Your task to perform on an android device: turn off airplane mode Image 0: 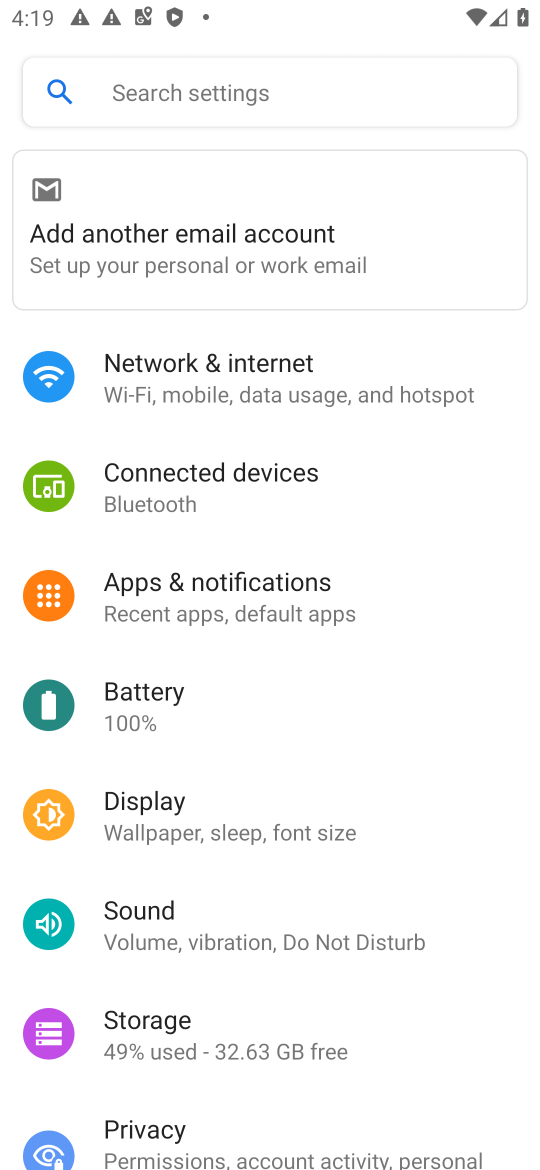
Step 0: click (135, 407)
Your task to perform on an android device: turn off airplane mode Image 1: 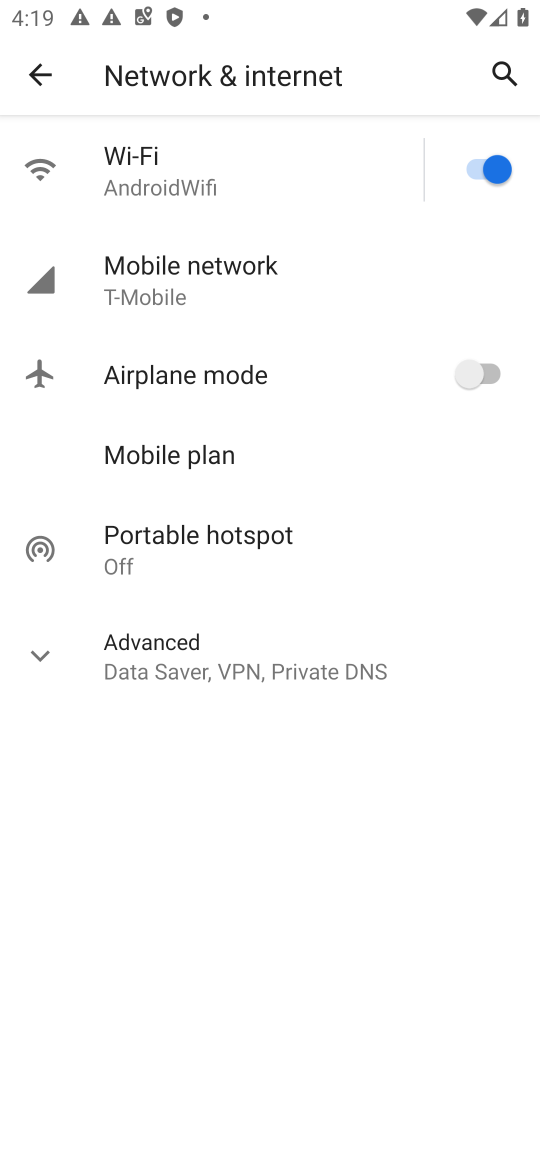
Step 1: task complete